Your task to perform on an android device: Go to calendar. Show me events next week Image 0: 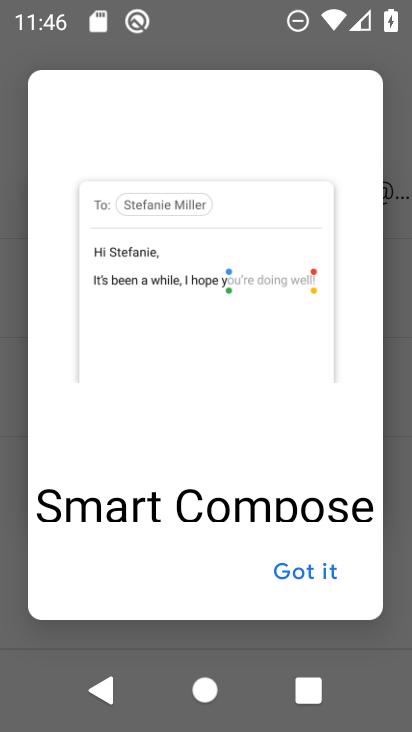
Step 0: press home button
Your task to perform on an android device: Go to calendar. Show me events next week Image 1: 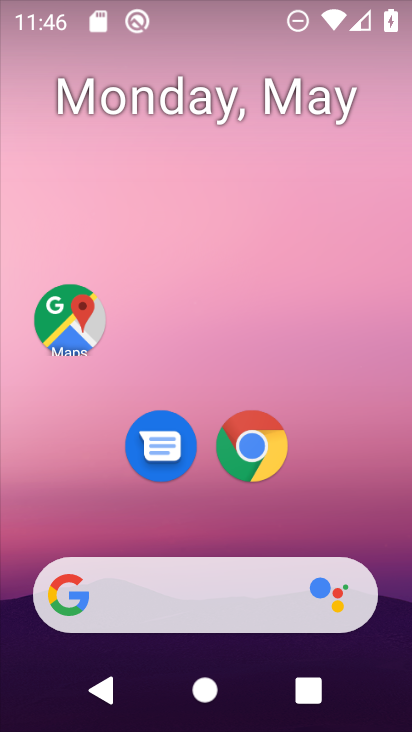
Step 1: drag from (329, 503) to (286, 153)
Your task to perform on an android device: Go to calendar. Show me events next week Image 2: 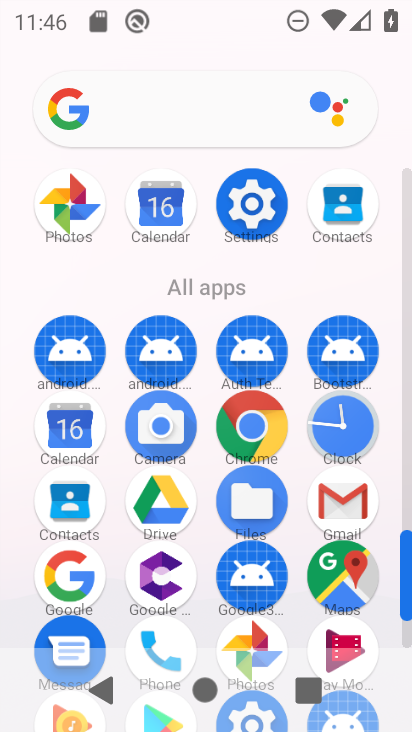
Step 2: click (163, 208)
Your task to perform on an android device: Go to calendar. Show me events next week Image 3: 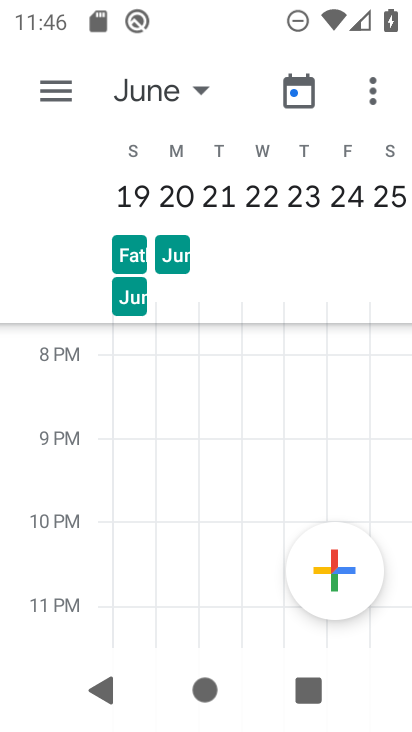
Step 3: click (306, 91)
Your task to perform on an android device: Go to calendar. Show me events next week Image 4: 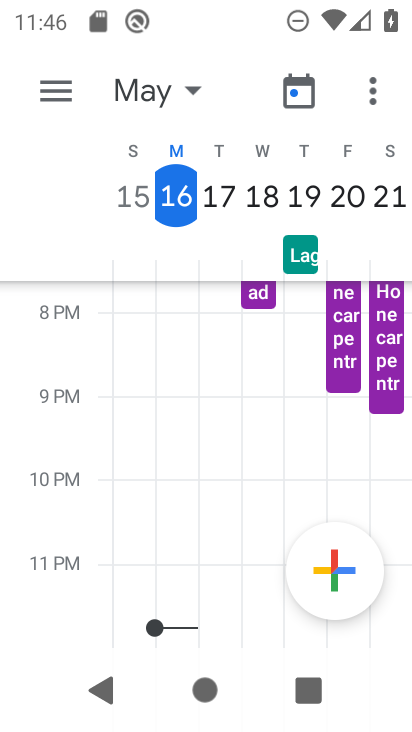
Step 4: click (193, 86)
Your task to perform on an android device: Go to calendar. Show me events next week Image 5: 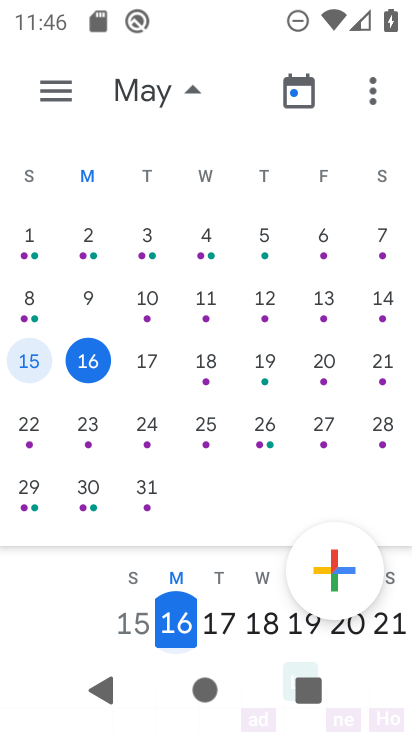
Step 5: click (83, 417)
Your task to perform on an android device: Go to calendar. Show me events next week Image 6: 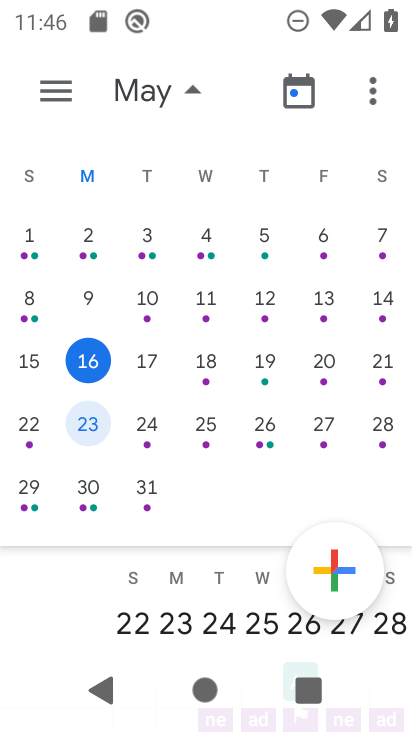
Step 6: click (71, 86)
Your task to perform on an android device: Go to calendar. Show me events next week Image 7: 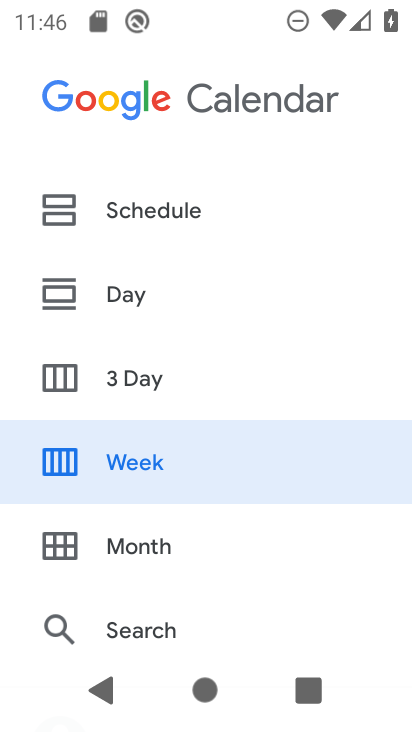
Step 7: click (122, 213)
Your task to perform on an android device: Go to calendar. Show me events next week Image 8: 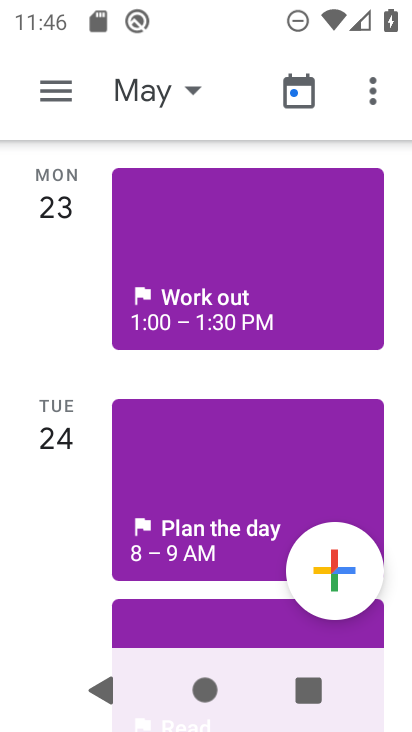
Step 8: click (289, 259)
Your task to perform on an android device: Go to calendar. Show me events next week Image 9: 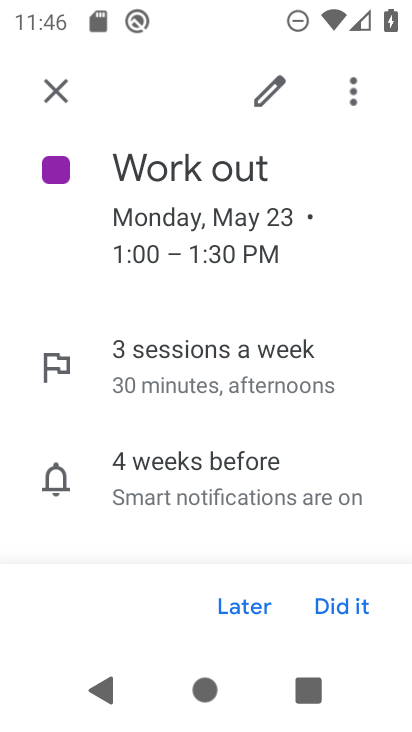
Step 9: task complete